Your task to perform on an android device: Open settings Image 0: 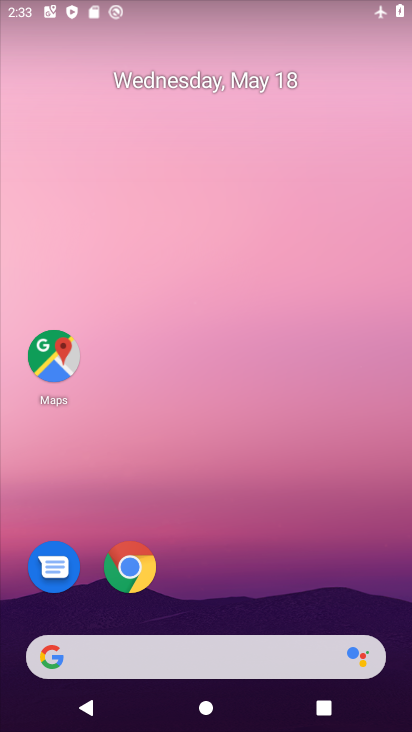
Step 0: drag from (226, 516) to (226, 271)
Your task to perform on an android device: Open settings Image 1: 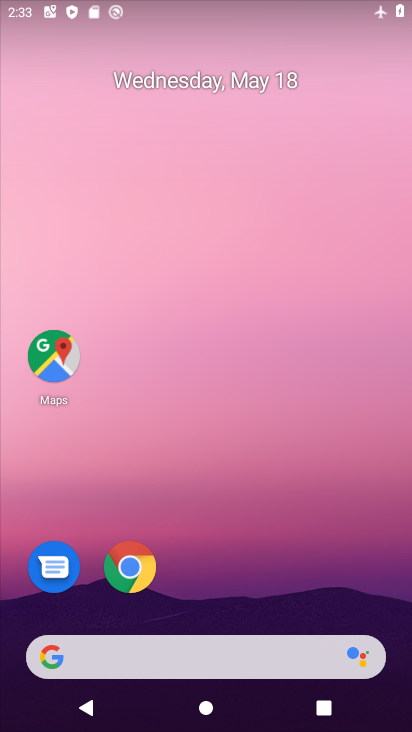
Step 1: drag from (238, 416) to (230, 243)
Your task to perform on an android device: Open settings Image 2: 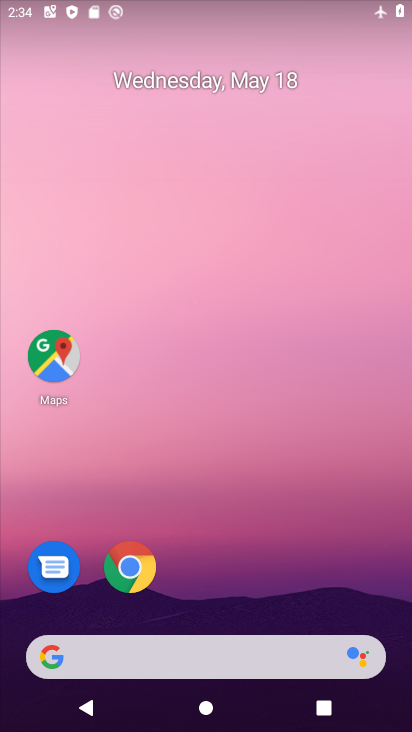
Step 2: drag from (227, 517) to (234, 325)
Your task to perform on an android device: Open settings Image 3: 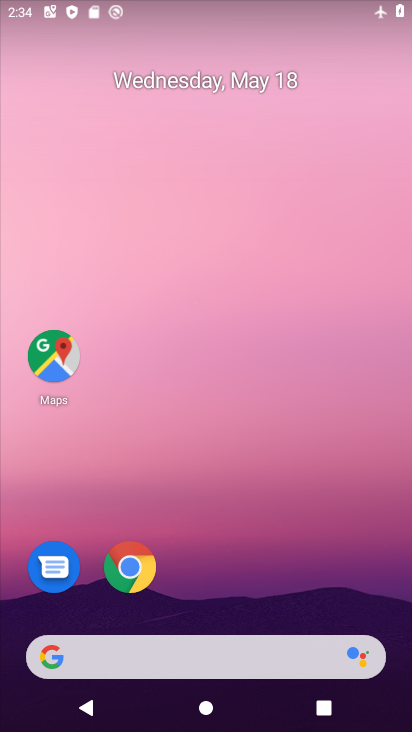
Step 3: drag from (204, 625) to (268, 197)
Your task to perform on an android device: Open settings Image 4: 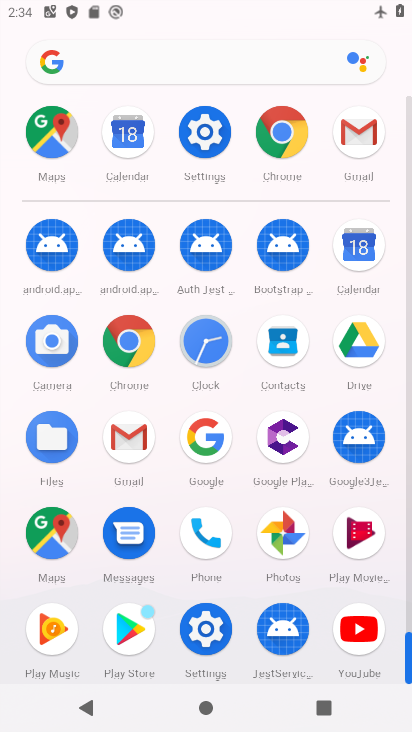
Step 4: click (198, 136)
Your task to perform on an android device: Open settings Image 5: 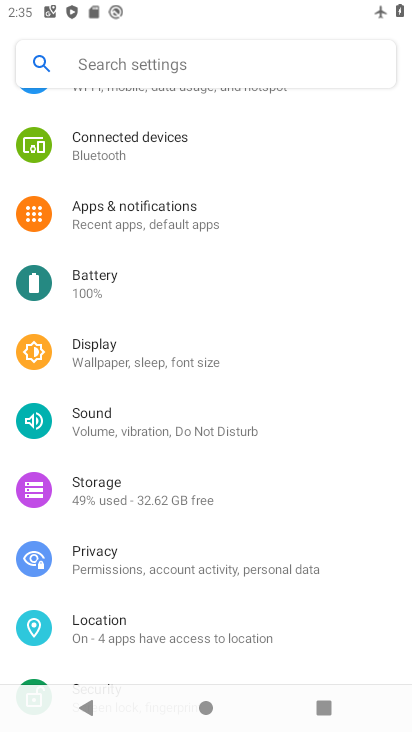
Step 5: task complete